Your task to perform on an android device: turn off location history Image 0: 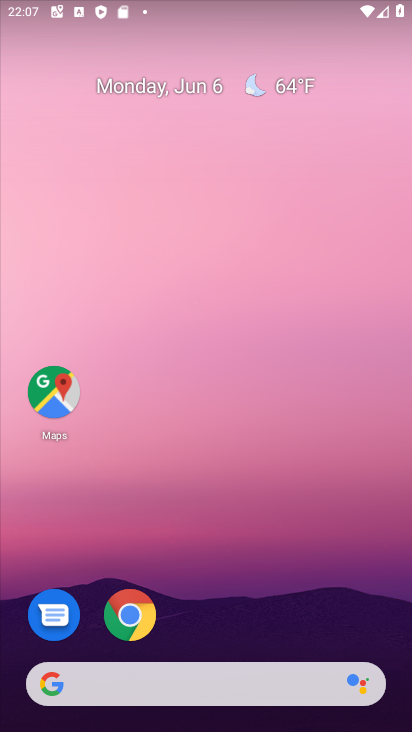
Step 0: drag from (361, 578) to (281, 202)
Your task to perform on an android device: turn off location history Image 1: 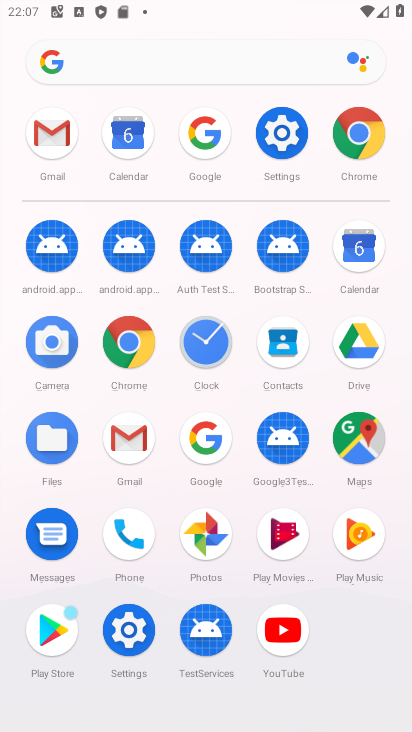
Step 1: click (285, 132)
Your task to perform on an android device: turn off location history Image 2: 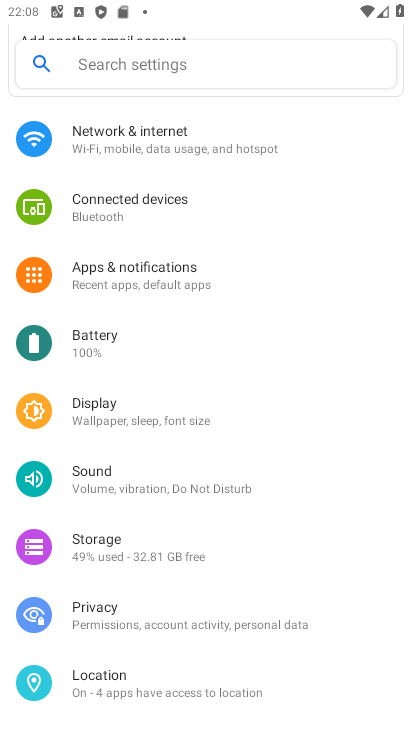
Step 2: click (108, 673)
Your task to perform on an android device: turn off location history Image 3: 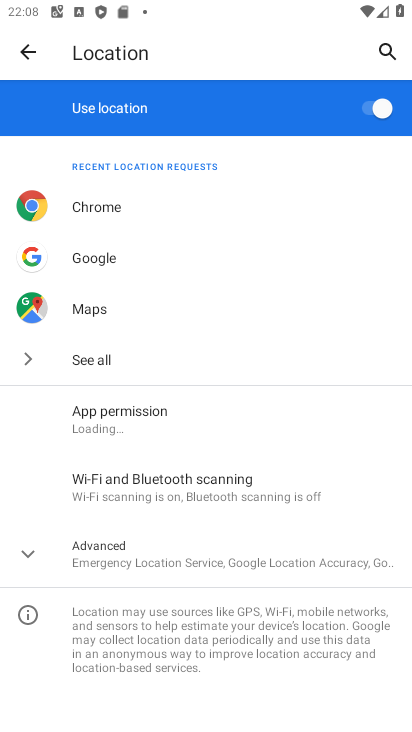
Step 3: click (84, 548)
Your task to perform on an android device: turn off location history Image 4: 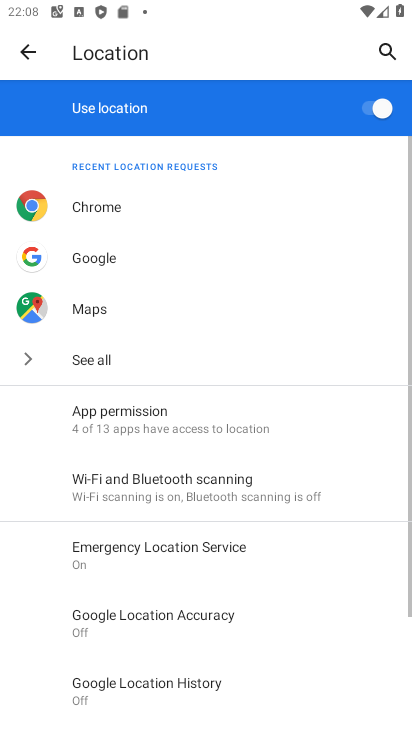
Step 4: drag from (298, 625) to (271, 362)
Your task to perform on an android device: turn off location history Image 5: 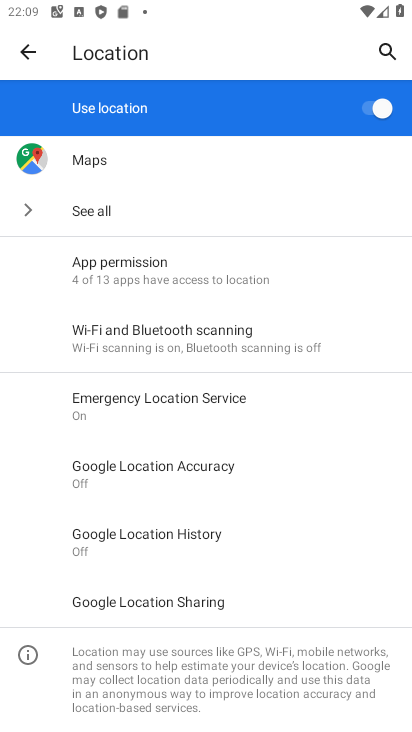
Step 5: click (165, 534)
Your task to perform on an android device: turn off location history Image 6: 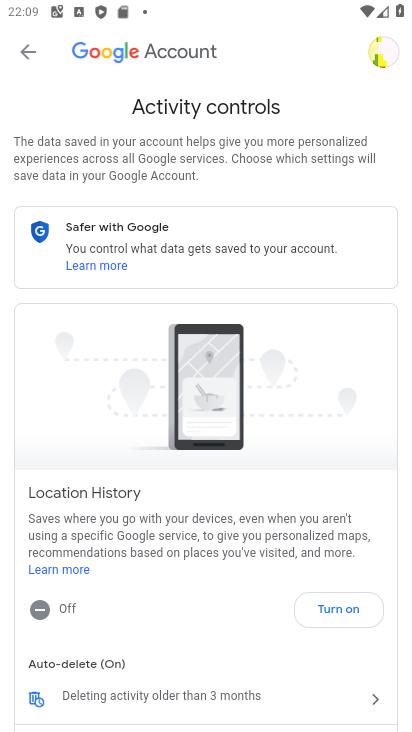
Step 6: task complete